Your task to perform on an android device: open a new tab in the chrome app Image 0: 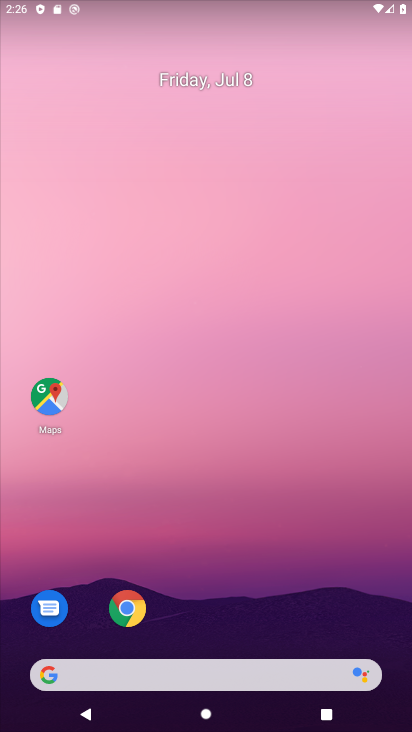
Step 0: click (122, 612)
Your task to perform on an android device: open a new tab in the chrome app Image 1: 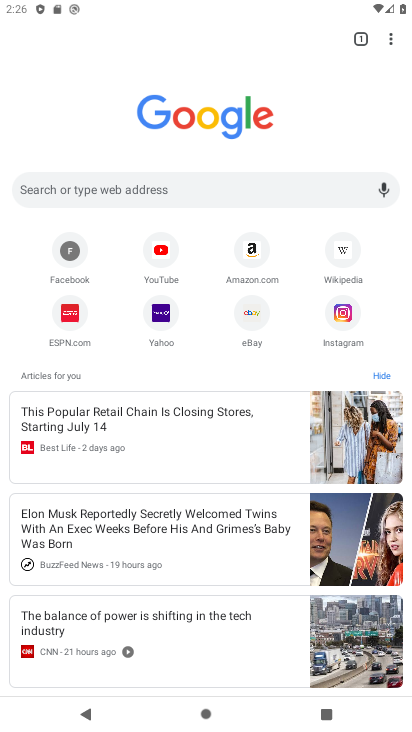
Step 1: click (361, 37)
Your task to perform on an android device: open a new tab in the chrome app Image 2: 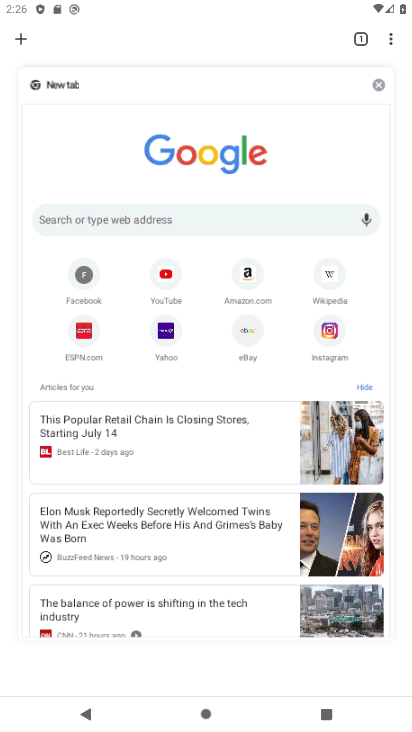
Step 2: click (22, 38)
Your task to perform on an android device: open a new tab in the chrome app Image 3: 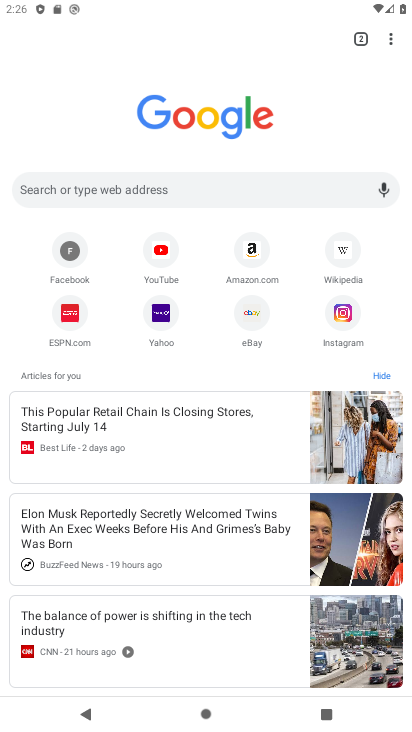
Step 3: task complete